Your task to perform on an android device: Search for flights from Mexico city to Sydney Image 0: 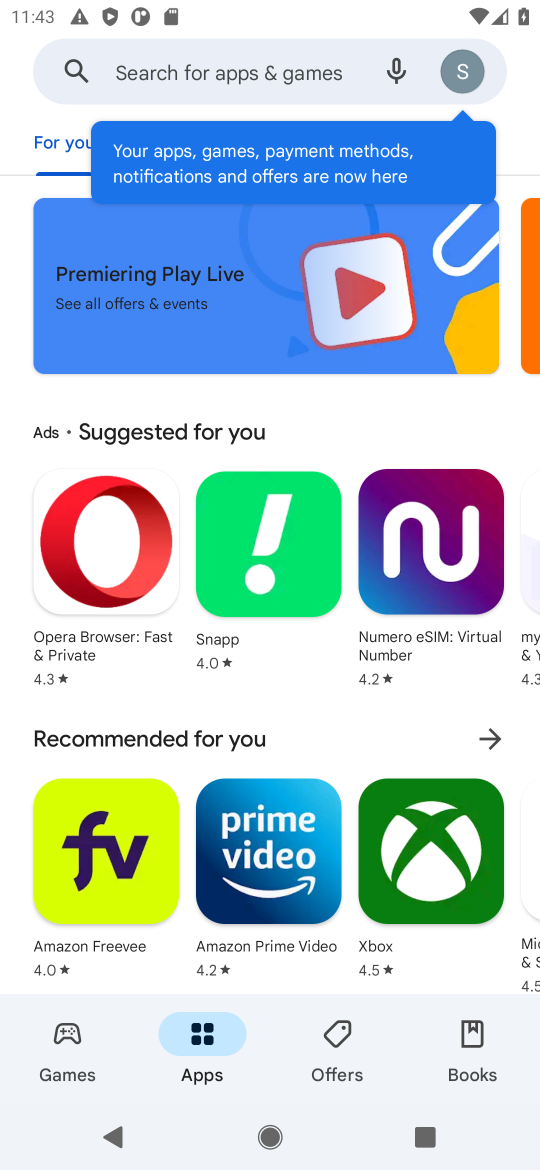
Step 0: press home button
Your task to perform on an android device: Search for flights from Mexico city to Sydney Image 1: 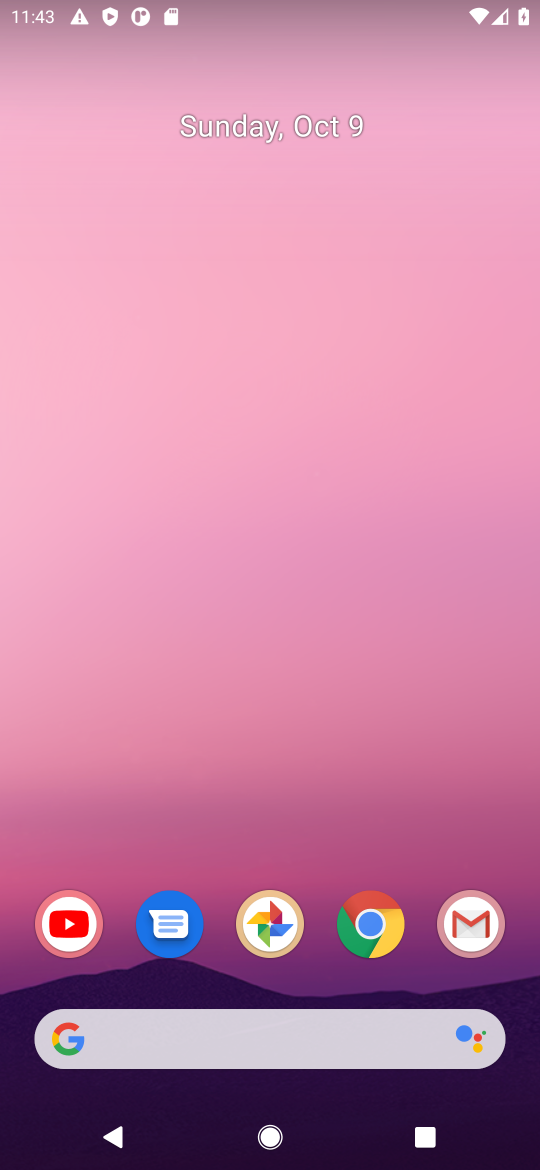
Step 1: drag from (221, 649) to (374, 6)
Your task to perform on an android device: Search for flights from Mexico city to Sydney Image 2: 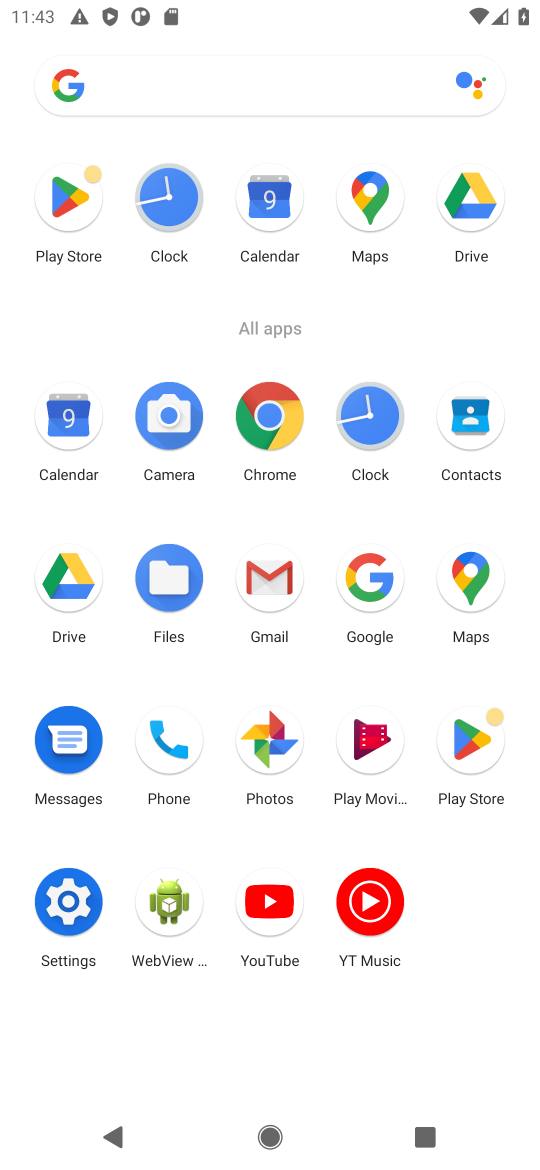
Step 2: click (262, 428)
Your task to perform on an android device: Search for flights from Mexico city to Sydney Image 3: 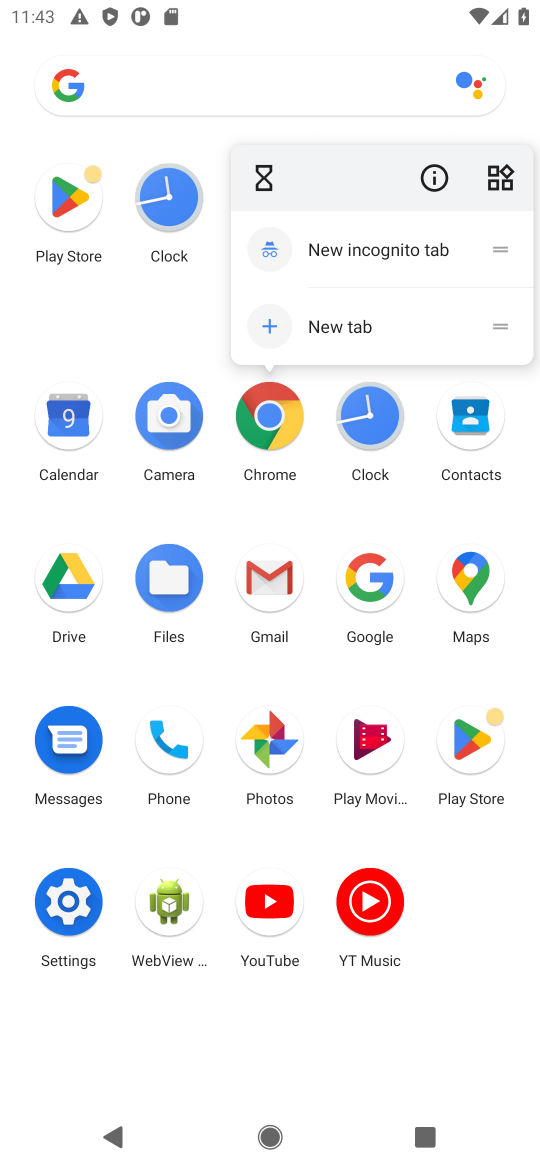
Step 3: click (294, 405)
Your task to perform on an android device: Search for flights from Mexico city to Sydney Image 4: 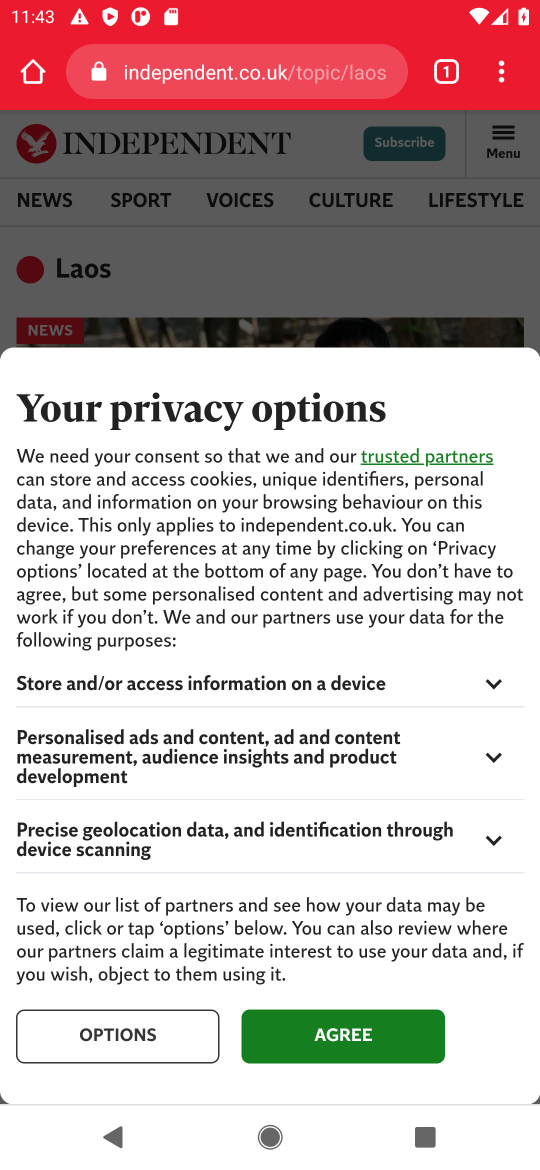
Step 4: click (201, 110)
Your task to perform on an android device: Search for flights from Mexico city to Sydney Image 5: 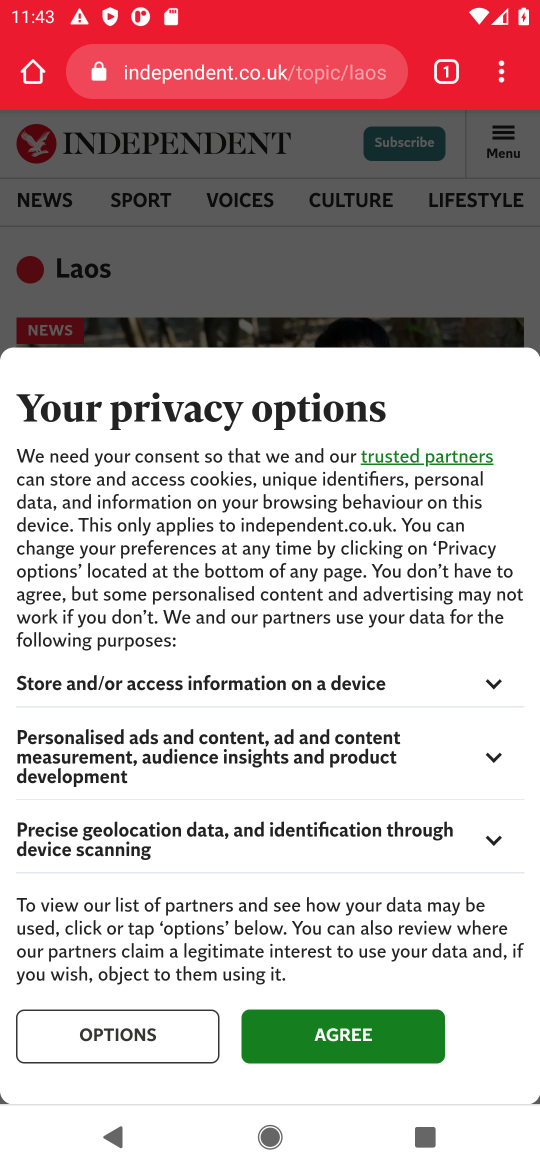
Step 5: click (203, 90)
Your task to perform on an android device: Search for flights from Mexico city to Sydney Image 6: 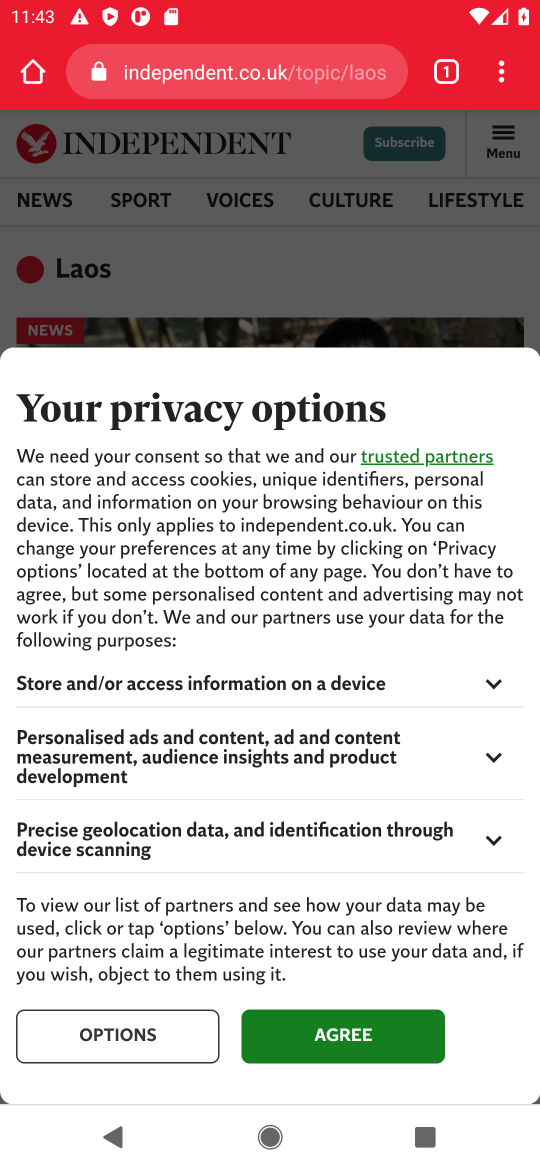
Step 6: click (203, 80)
Your task to perform on an android device: Search for flights from Mexico city to Sydney Image 7: 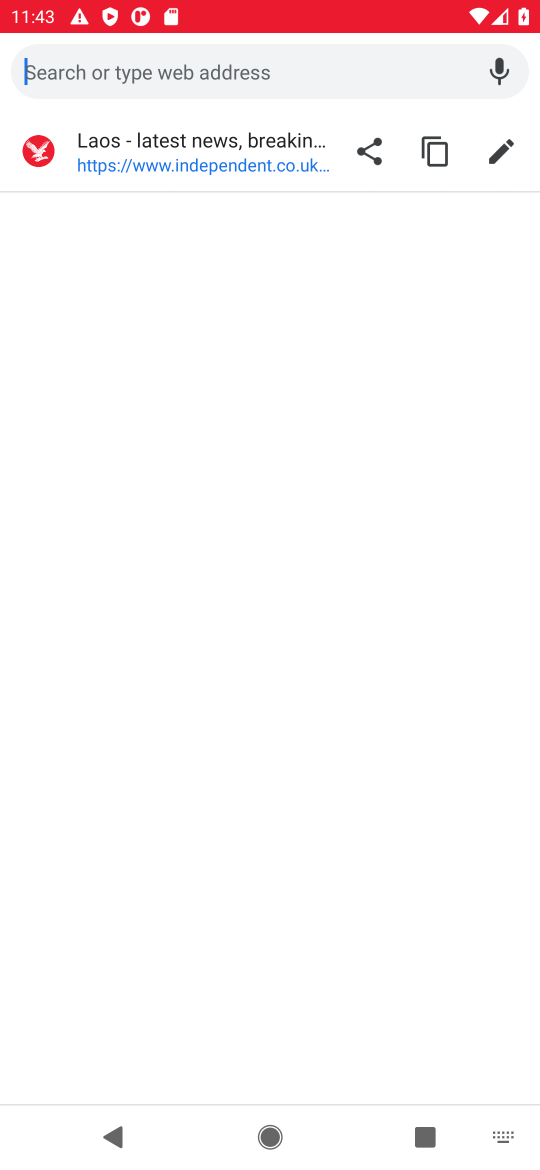
Step 7: click (200, 73)
Your task to perform on an android device: Search for flights from Mexico city to Sydney Image 8: 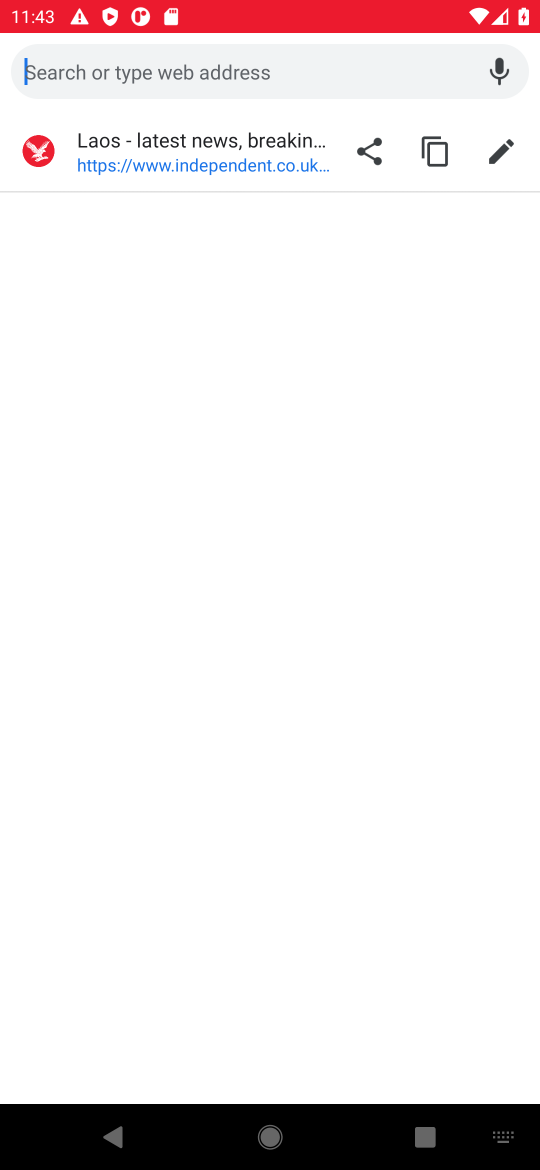
Step 8: press home button
Your task to perform on an android device: Search for flights from Mexico city to Sydney Image 9: 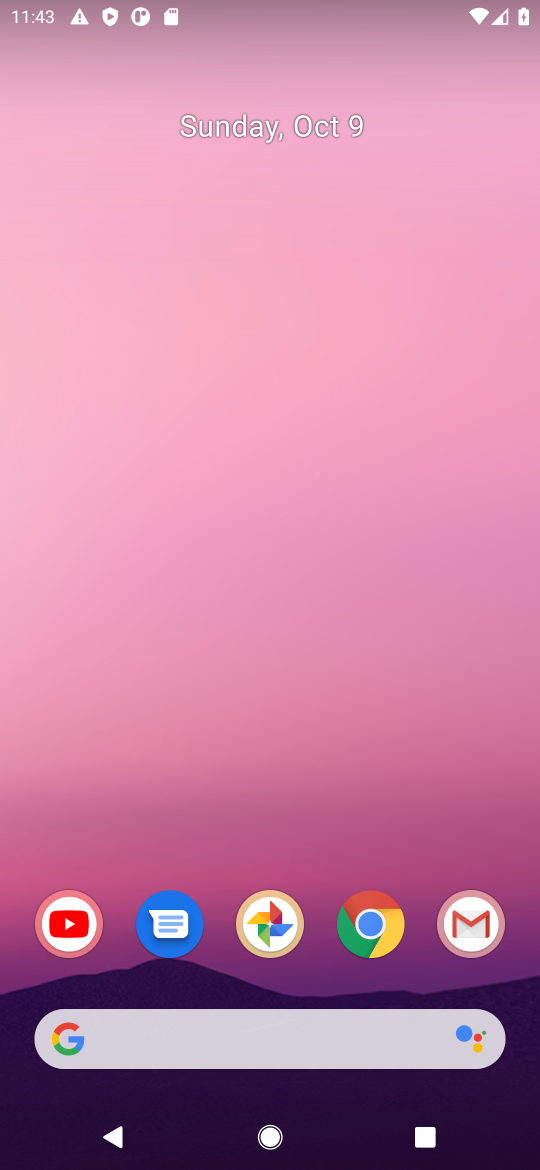
Step 9: click (371, 925)
Your task to perform on an android device: Search for flights from Mexico city to Sydney Image 10: 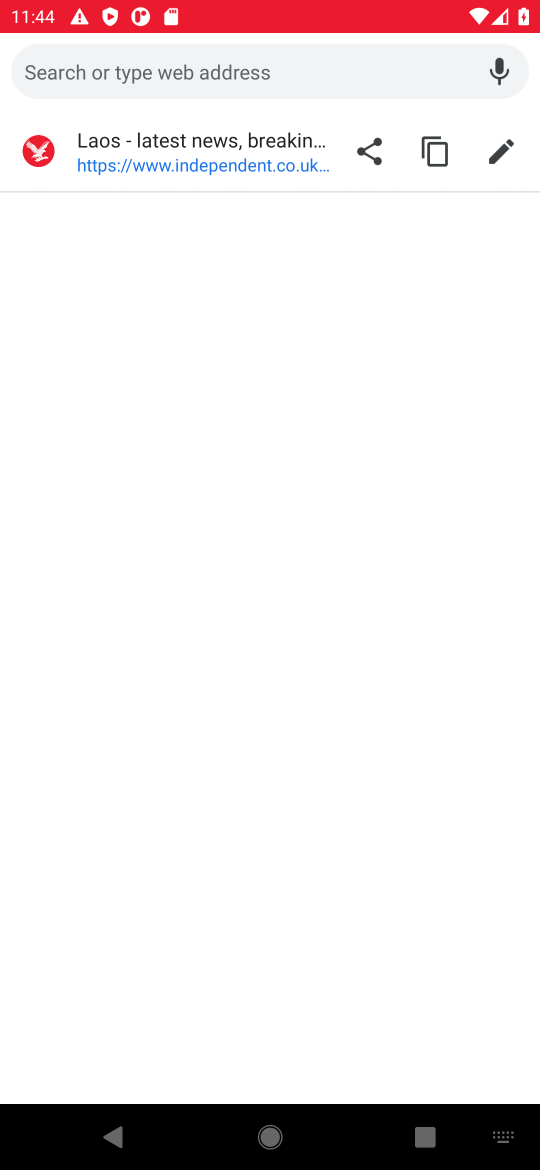
Step 10: type "Search for flights from Mexico city to Sydney"
Your task to perform on an android device: Search for flights from Mexico city to Sydney Image 11: 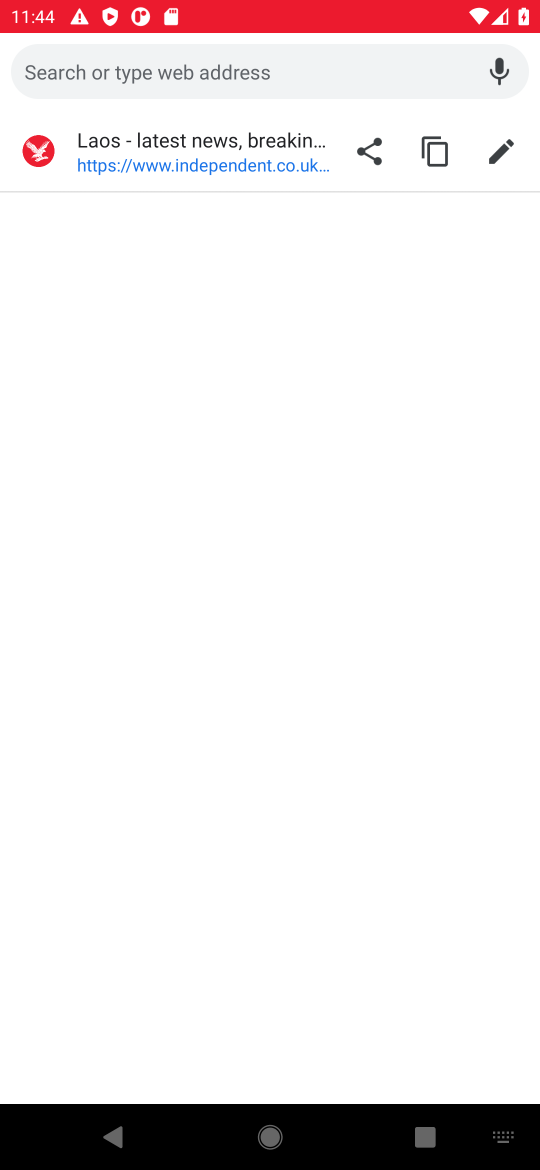
Step 11: click (326, 78)
Your task to perform on an android device: Search for flights from Mexico city to Sydney Image 12: 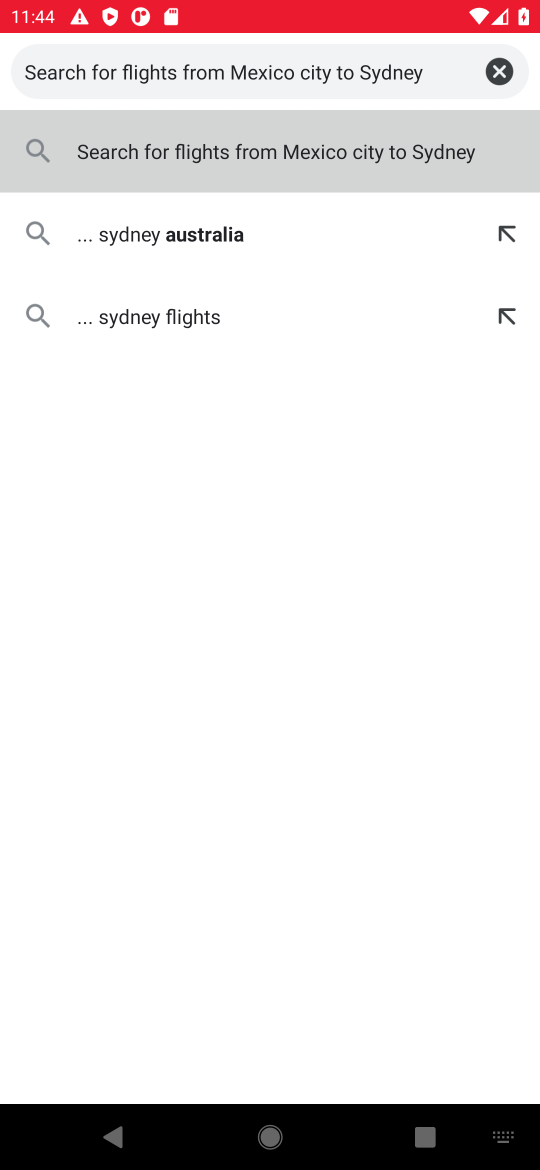
Step 12: press enter
Your task to perform on an android device: Search for flights from Mexico city to Sydney Image 13: 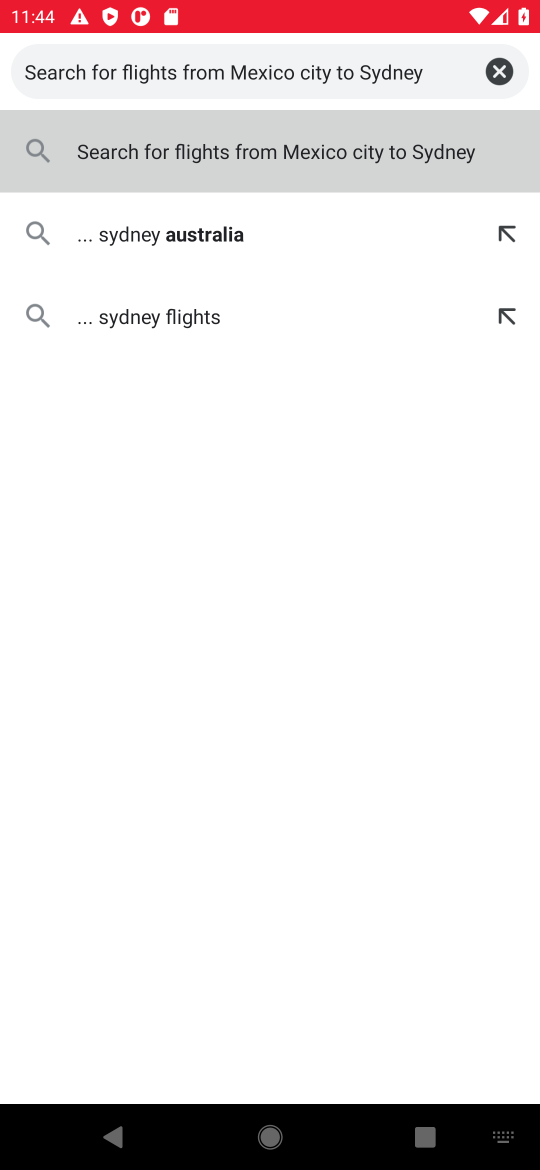
Step 13: click (326, 78)
Your task to perform on an android device: Search for flights from Mexico city to Sydney Image 14: 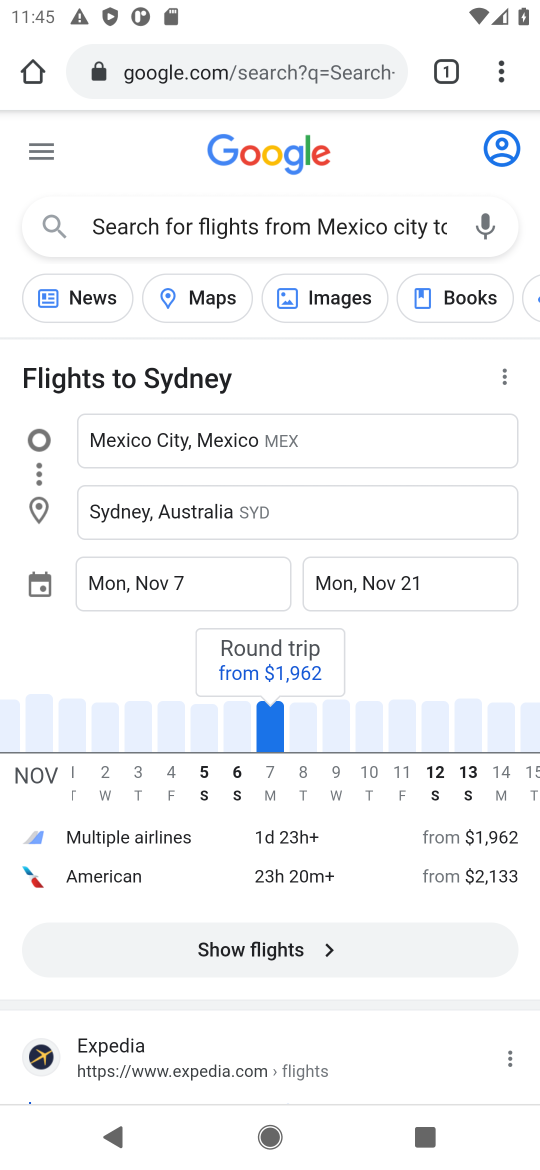
Step 14: task complete